Your task to perform on an android device: Search for seafood restaurants on Google Maps Image 0: 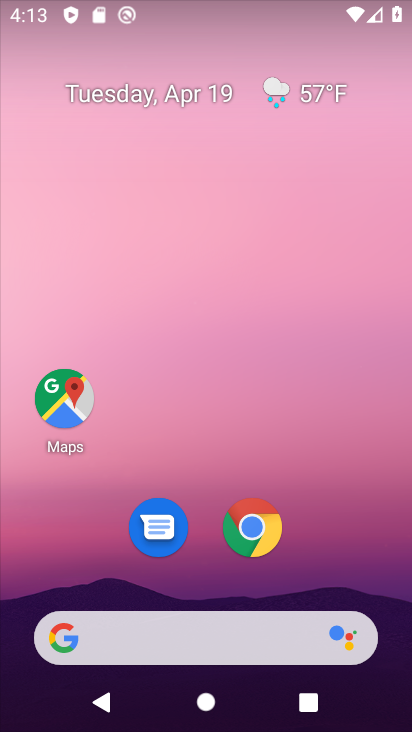
Step 0: click (65, 396)
Your task to perform on an android device: Search for seafood restaurants on Google Maps Image 1: 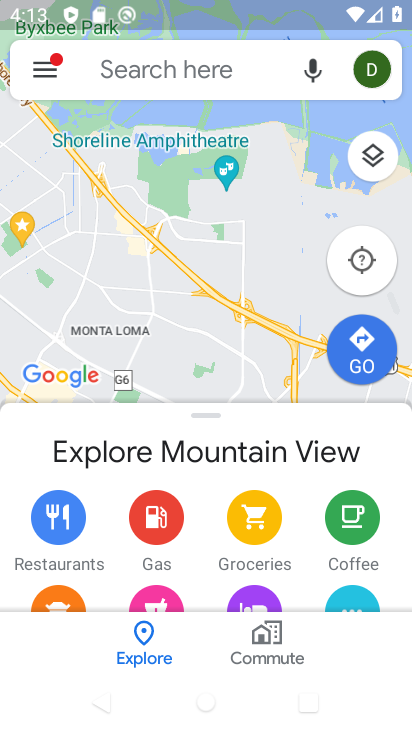
Step 1: click (157, 66)
Your task to perform on an android device: Search for seafood restaurants on Google Maps Image 2: 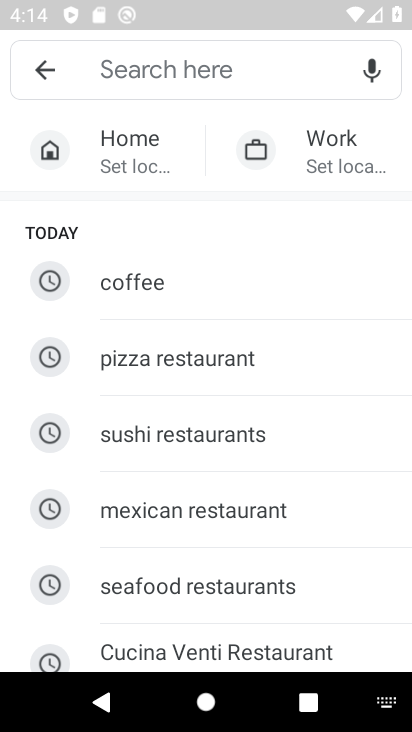
Step 2: type "seafood restaurants"
Your task to perform on an android device: Search for seafood restaurants on Google Maps Image 3: 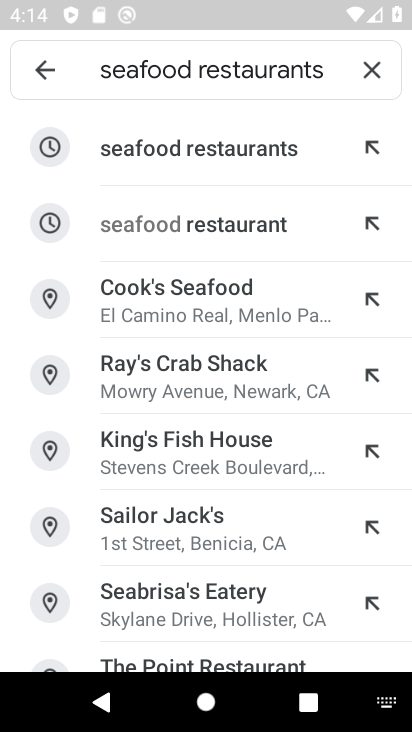
Step 3: click (190, 140)
Your task to perform on an android device: Search for seafood restaurants on Google Maps Image 4: 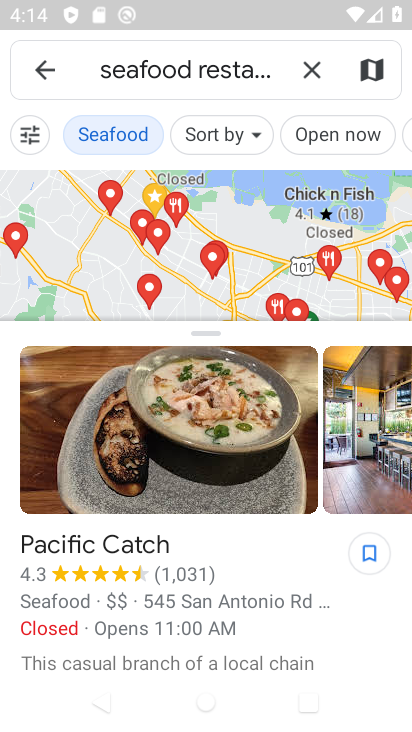
Step 4: task complete